Your task to perform on an android device: Search for nike dri-fit shirts on Nike Image 0: 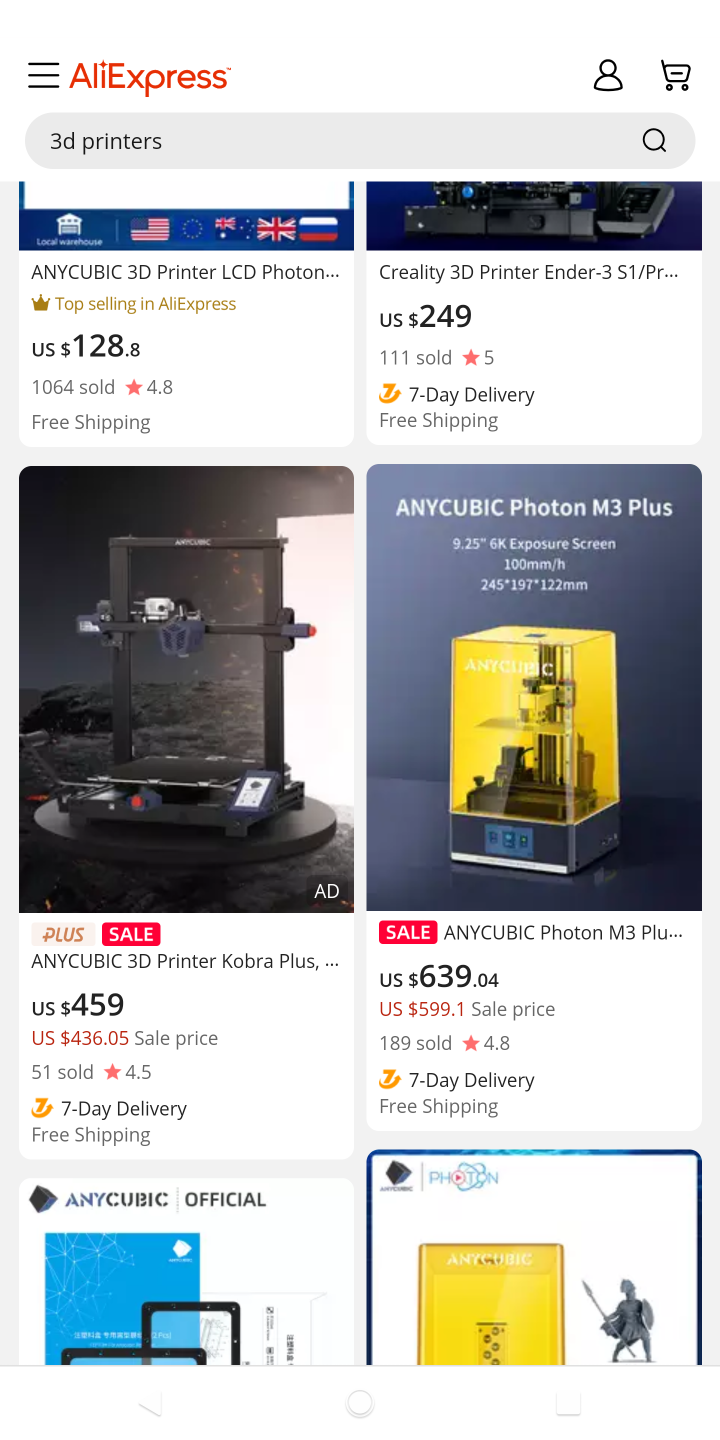
Step 0: press home button
Your task to perform on an android device: Search for nike dri-fit shirts on Nike Image 1: 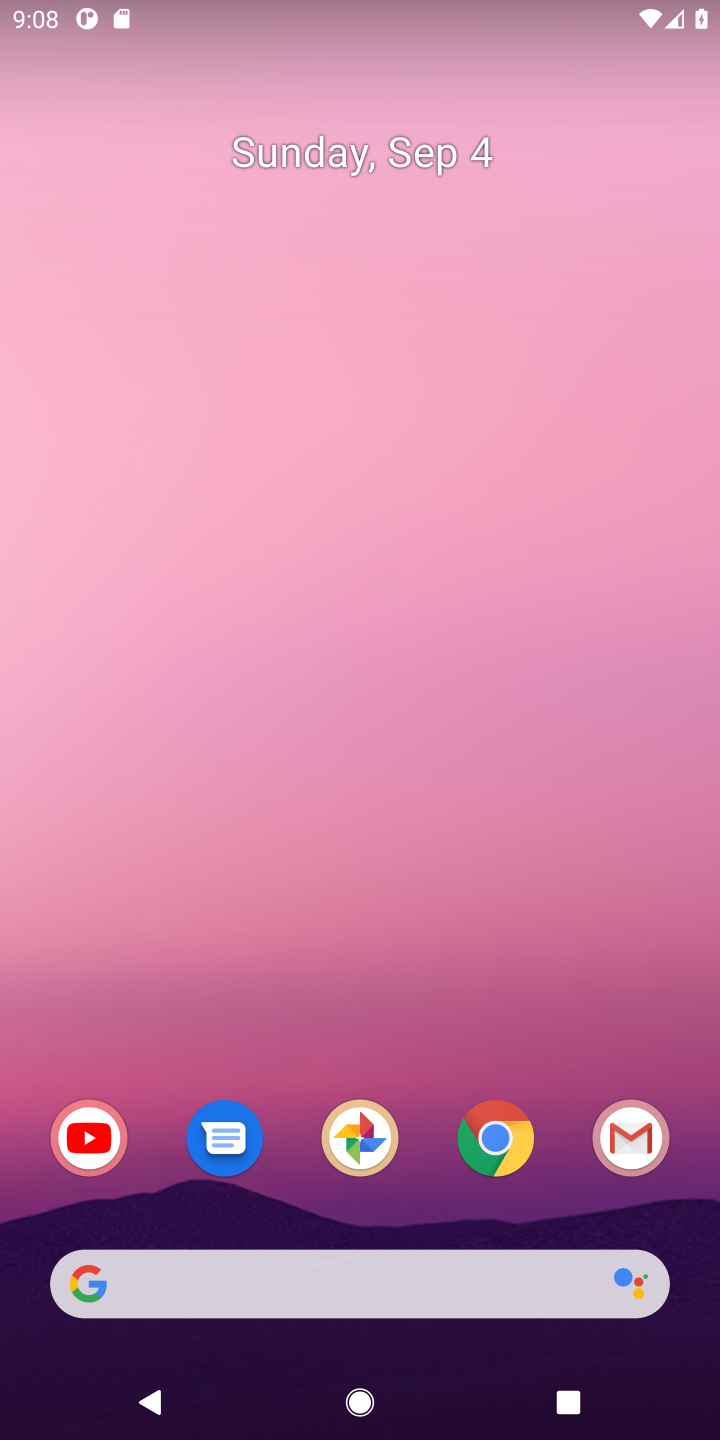
Step 1: drag from (425, 1186) to (431, 240)
Your task to perform on an android device: Search for nike dri-fit shirts on Nike Image 2: 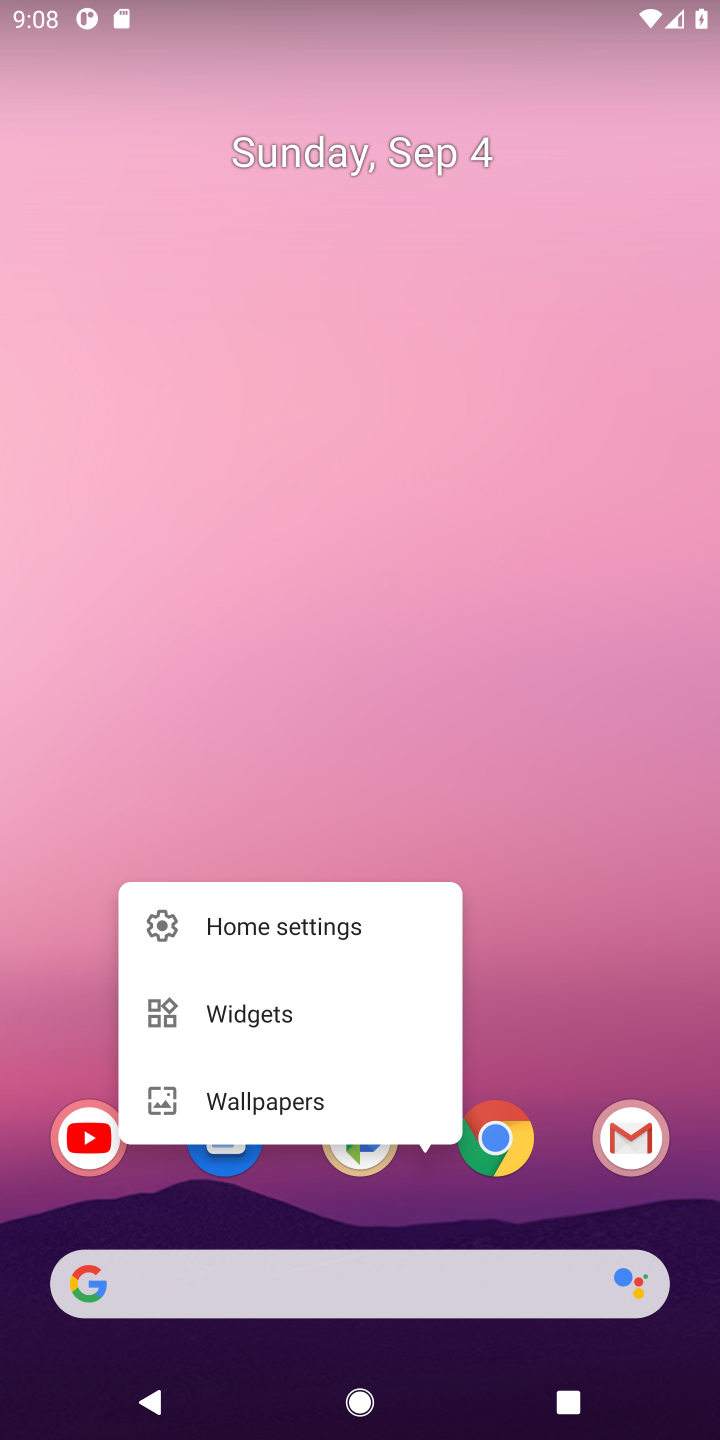
Step 2: click (548, 986)
Your task to perform on an android device: Search for nike dri-fit shirts on Nike Image 3: 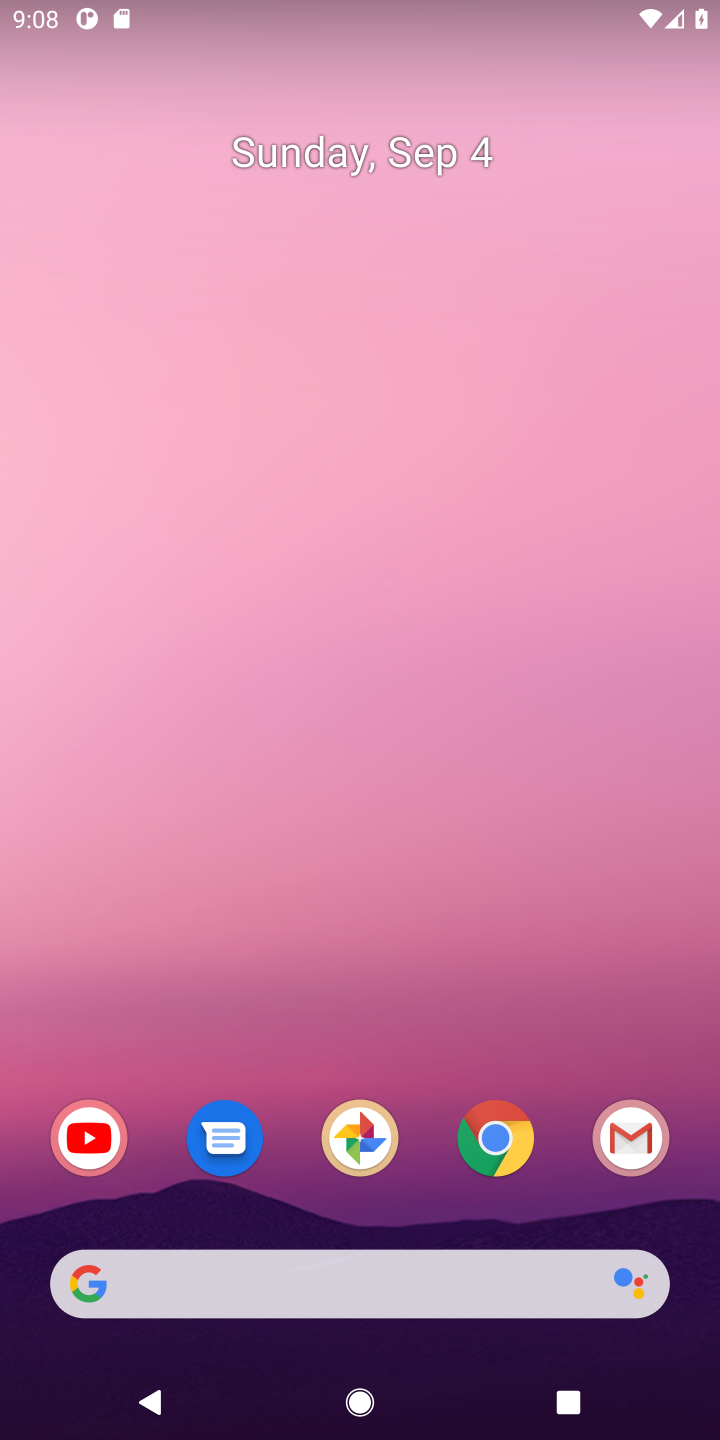
Step 3: drag from (432, 1065) to (383, 89)
Your task to perform on an android device: Search for nike dri-fit shirts on Nike Image 4: 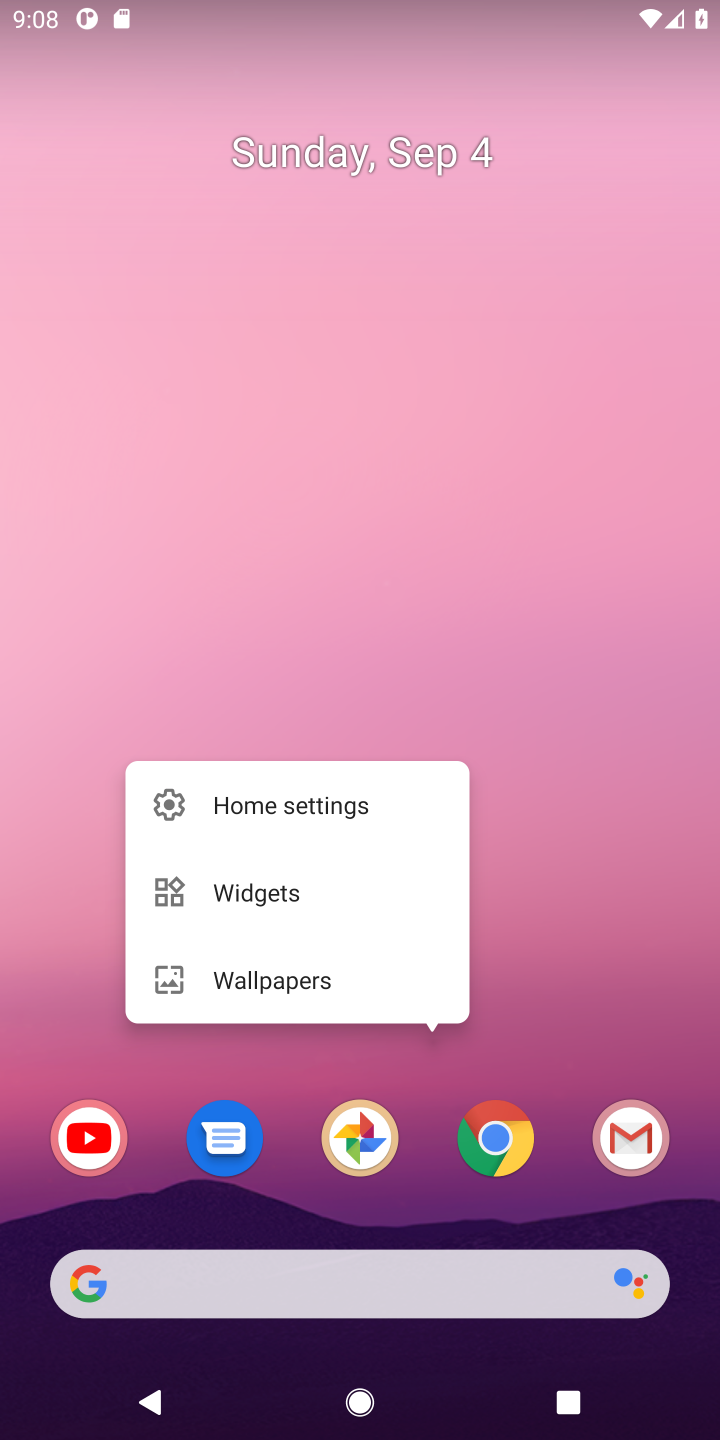
Step 4: click (554, 875)
Your task to perform on an android device: Search for nike dri-fit shirts on Nike Image 5: 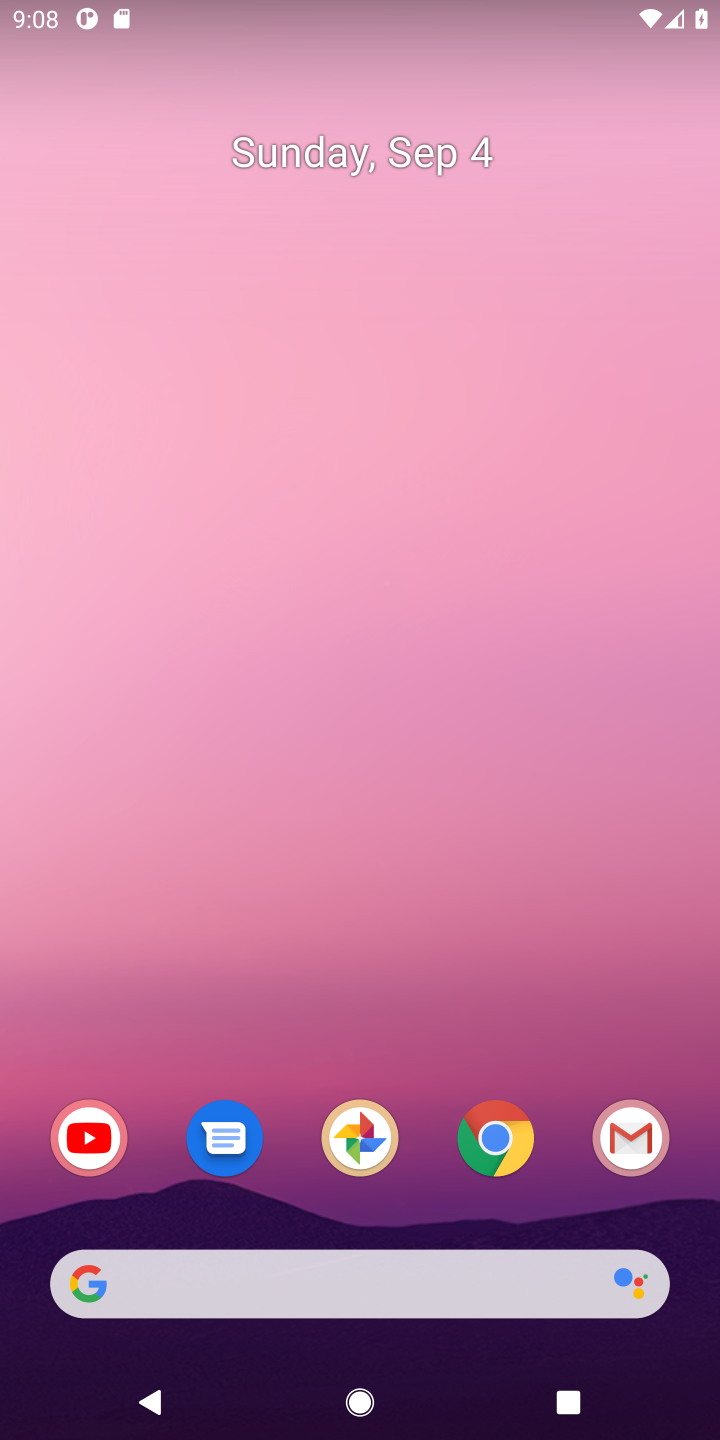
Step 5: drag from (413, 1073) to (457, 234)
Your task to perform on an android device: Search for nike dri-fit shirts on Nike Image 6: 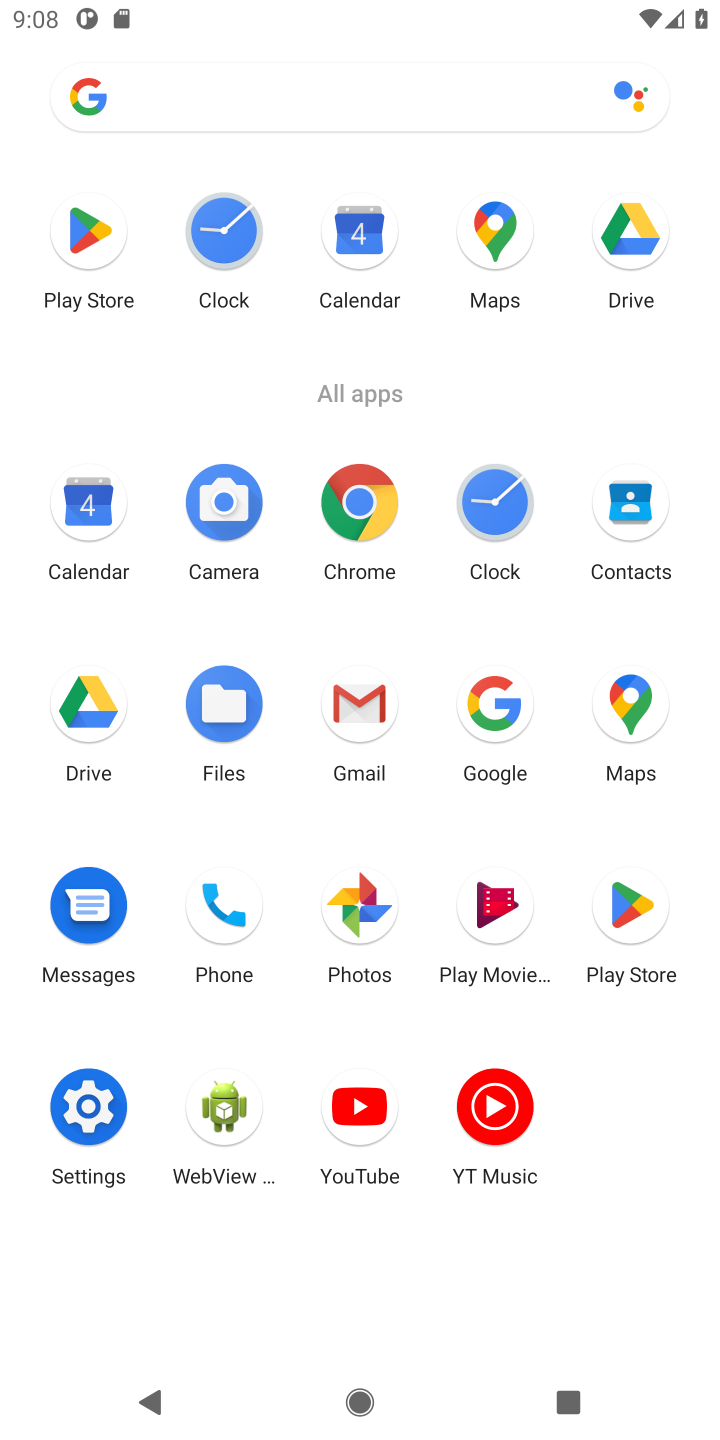
Step 6: click (354, 491)
Your task to perform on an android device: Search for nike dri-fit shirts on Nike Image 7: 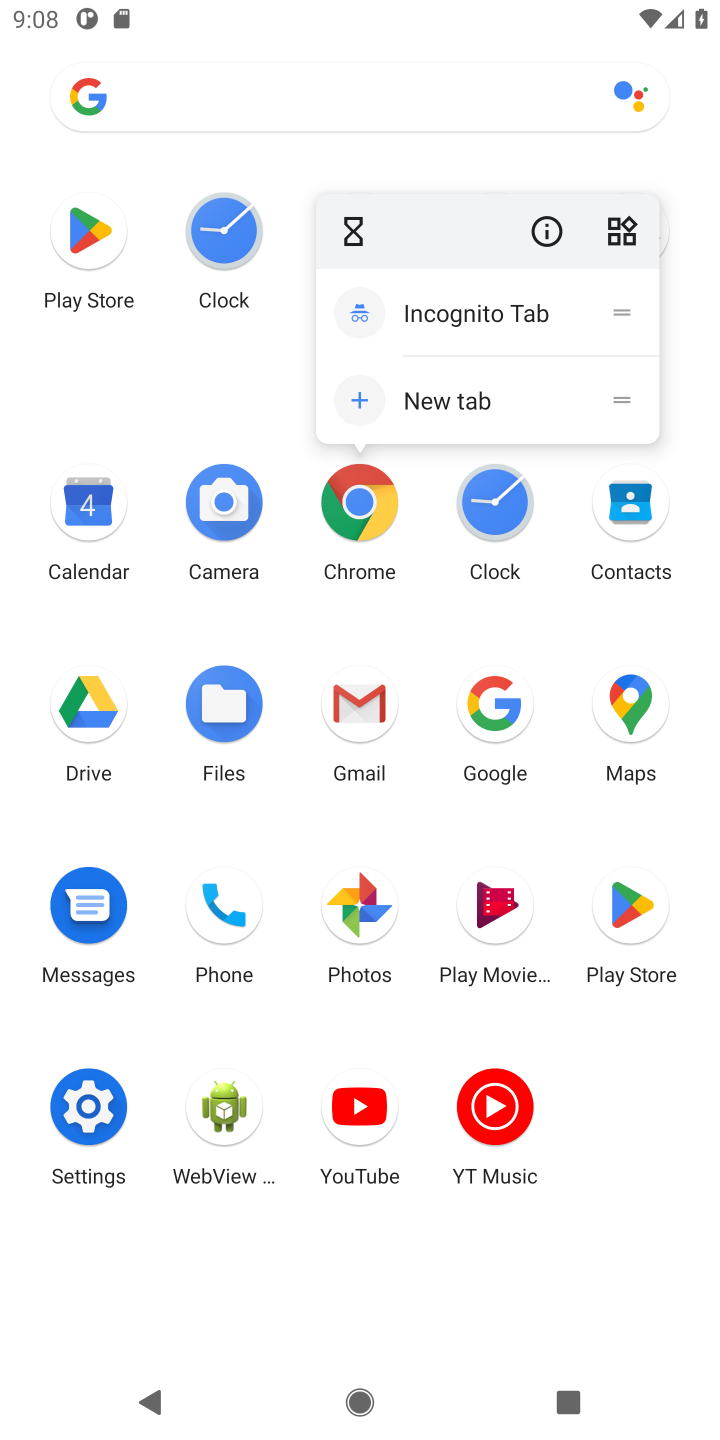
Step 7: click (355, 489)
Your task to perform on an android device: Search for nike dri-fit shirts on Nike Image 8: 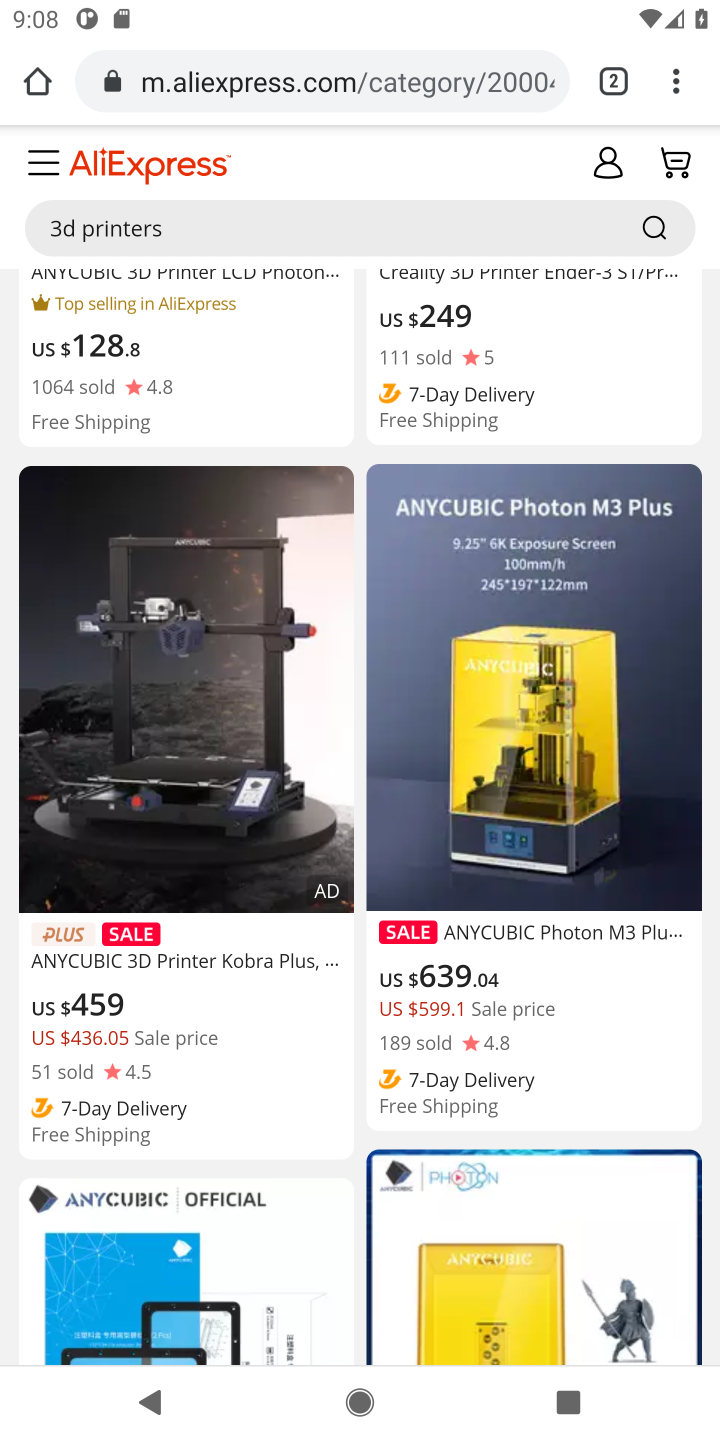
Step 8: click (605, 80)
Your task to perform on an android device: Search for nike dri-fit shirts on Nike Image 9: 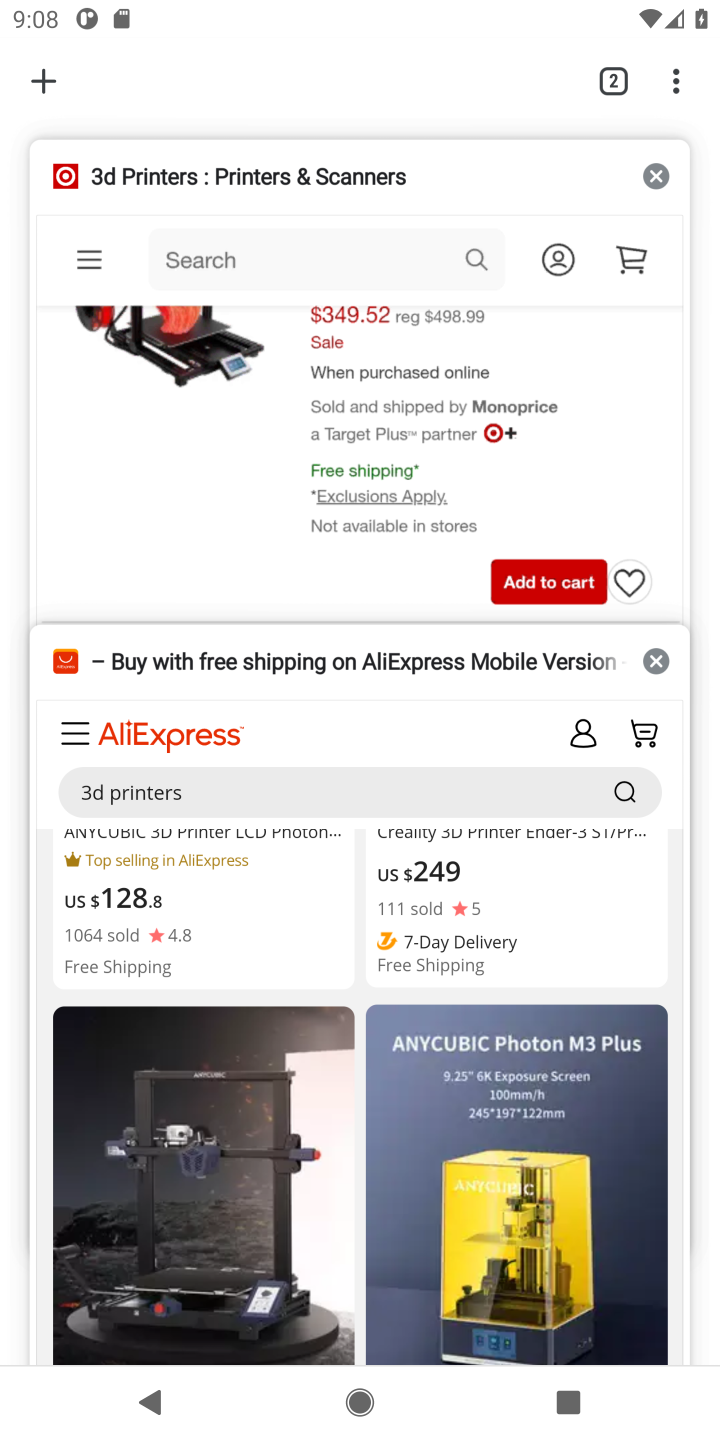
Step 9: click (659, 660)
Your task to perform on an android device: Search for nike dri-fit shirts on Nike Image 10: 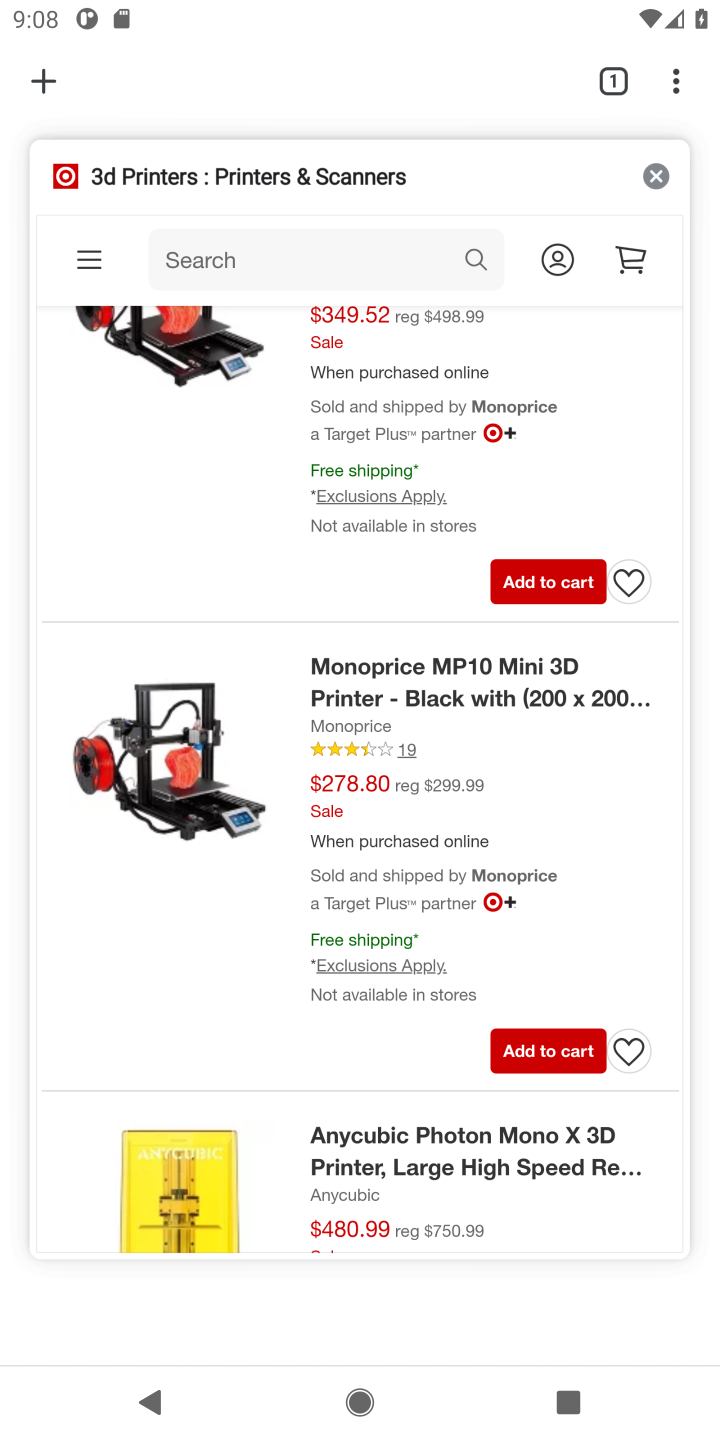
Step 10: click (658, 174)
Your task to perform on an android device: Search for nike dri-fit shirts on Nike Image 11: 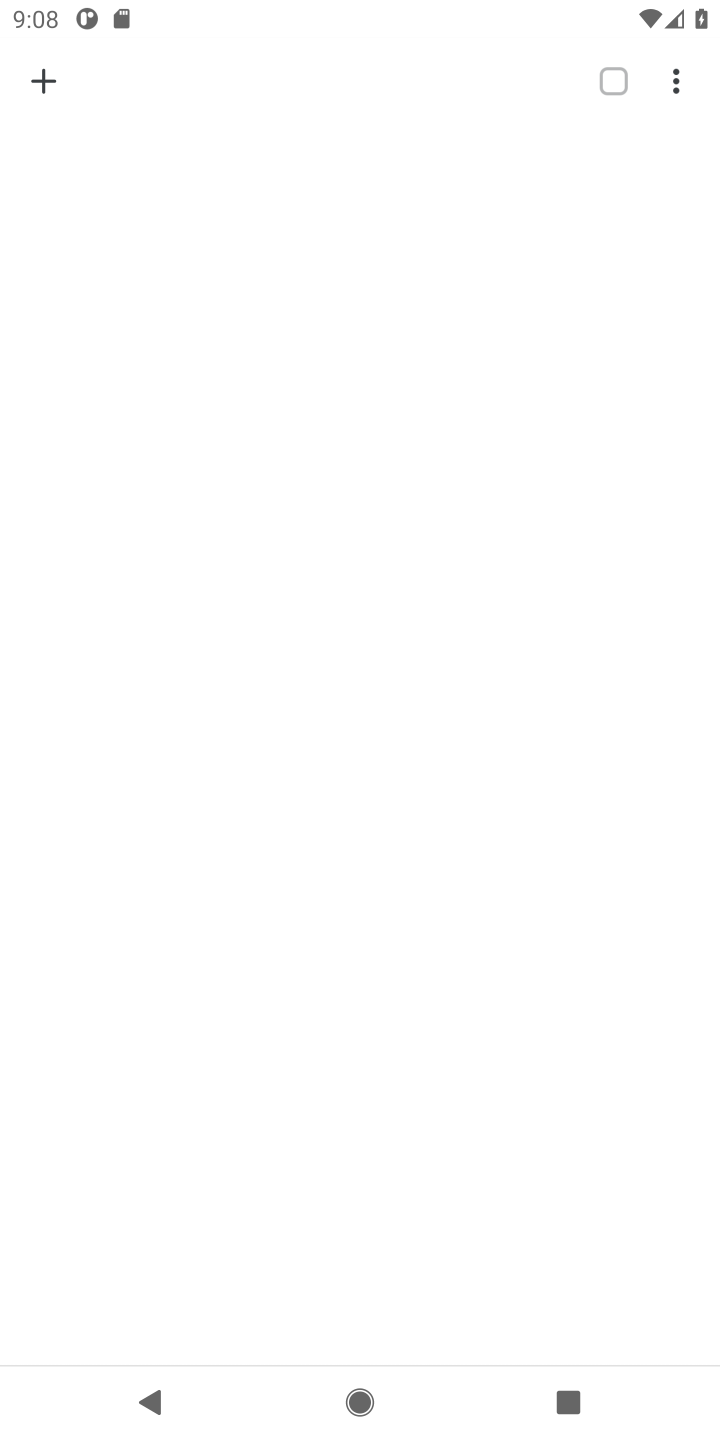
Step 11: click (54, 83)
Your task to perform on an android device: Search for nike dri-fit shirts on Nike Image 12: 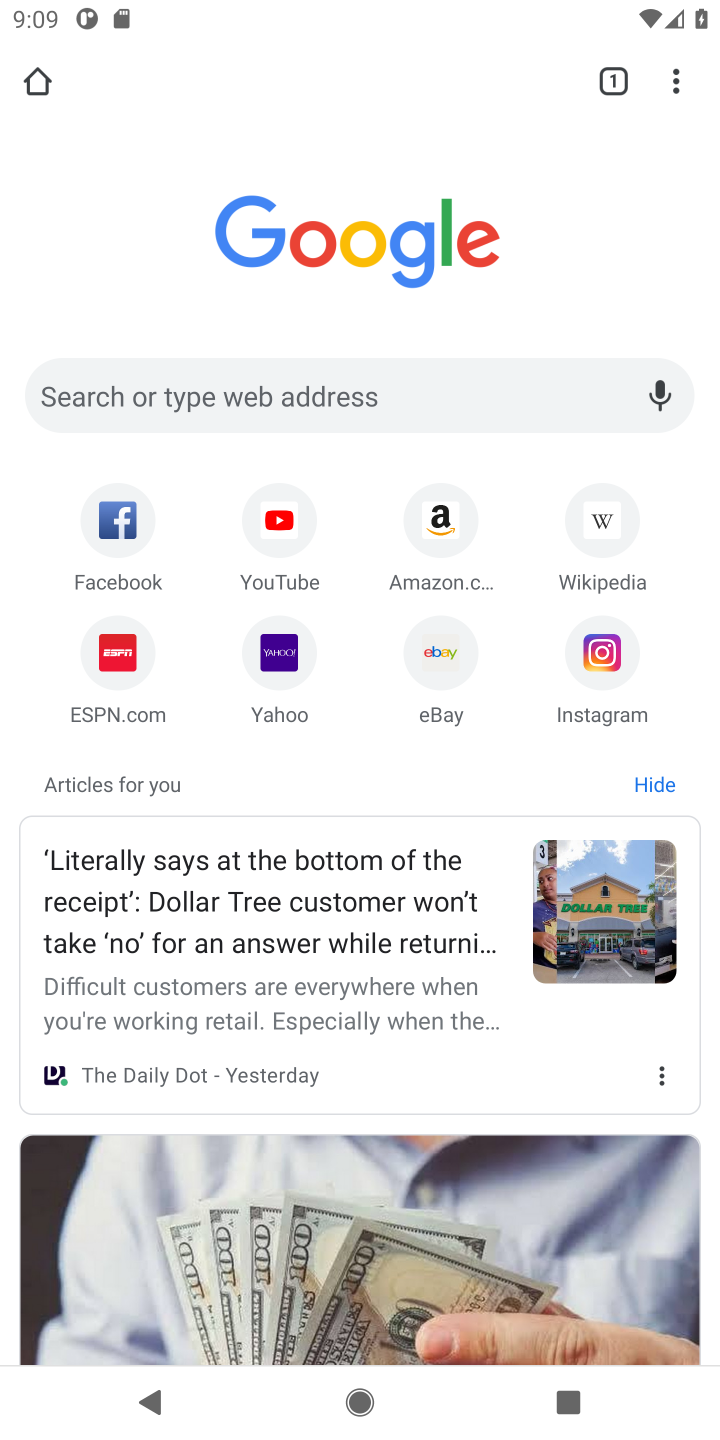
Step 12: click (170, 398)
Your task to perform on an android device: Search for nike dri-fit shirts on Nike Image 13: 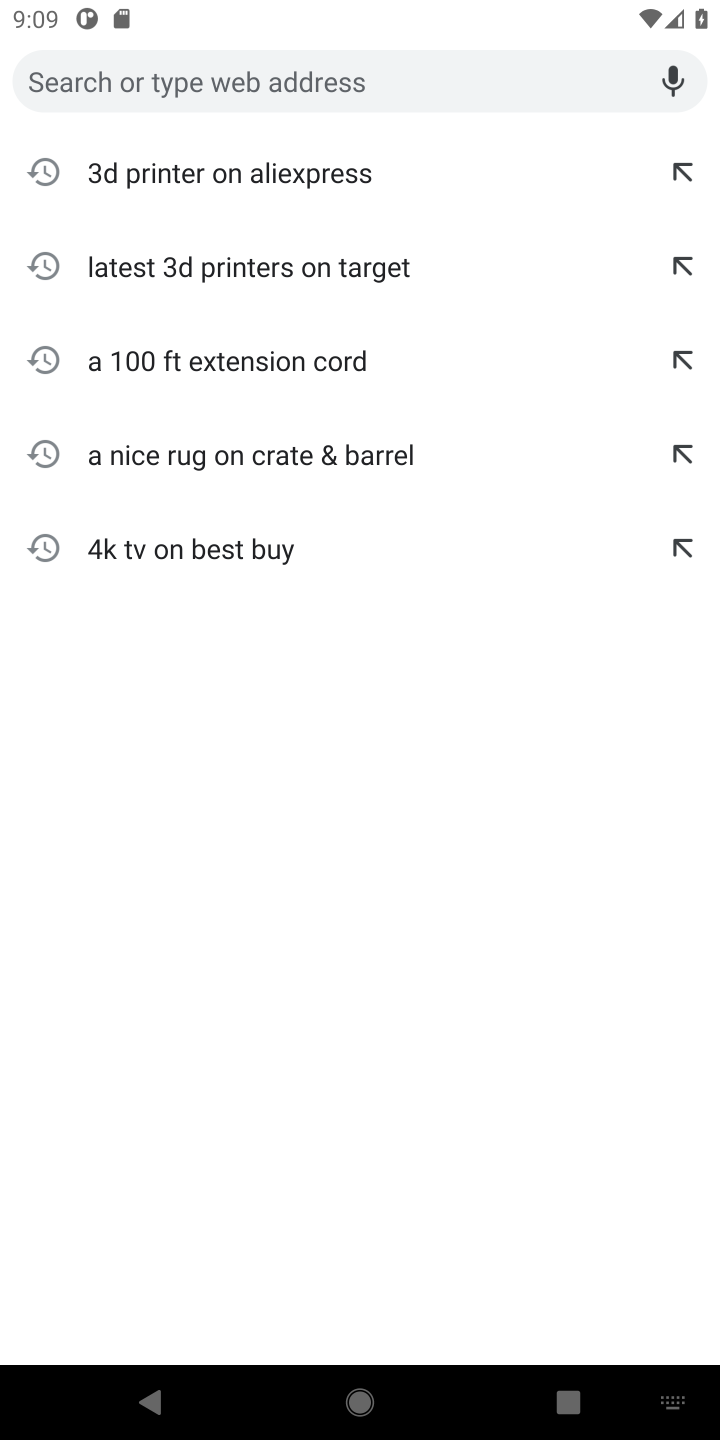
Step 13: type " nike dri-fit shirts on Nike"
Your task to perform on an android device: Search for nike dri-fit shirts on Nike Image 14: 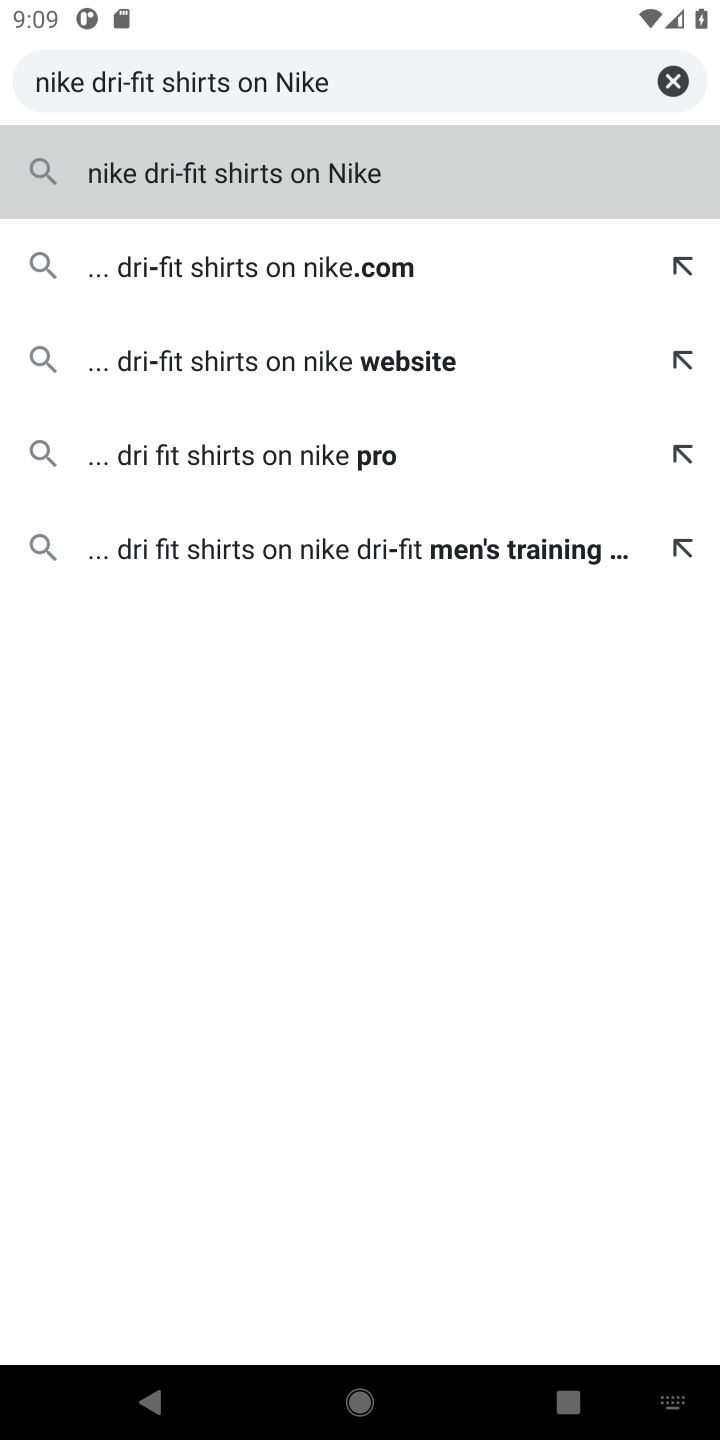
Step 14: click (269, 181)
Your task to perform on an android device: Search for nike dri-fit shirts on Nike Image 15: 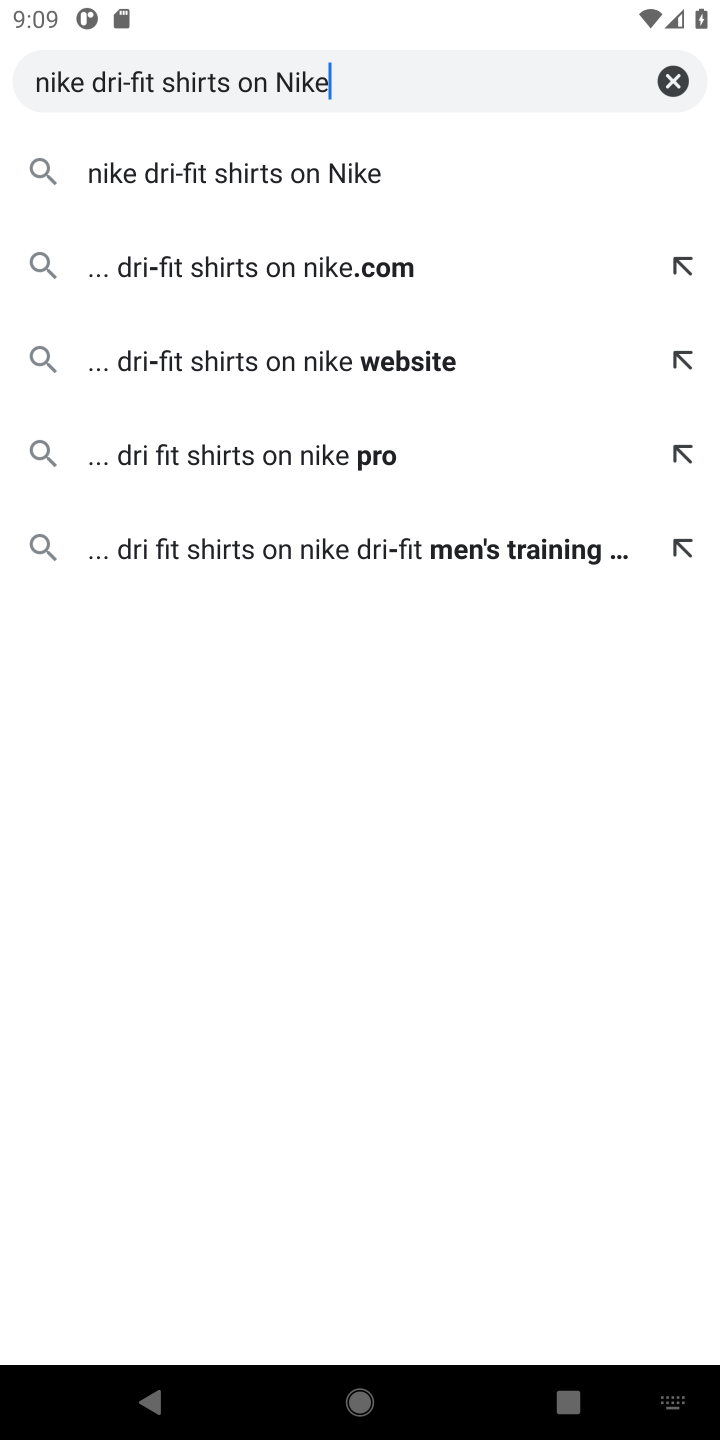
Step 15: click (363, 166)
Your task to perform on an android device: Search for nike dri-fit shirts on Nike Image 16: 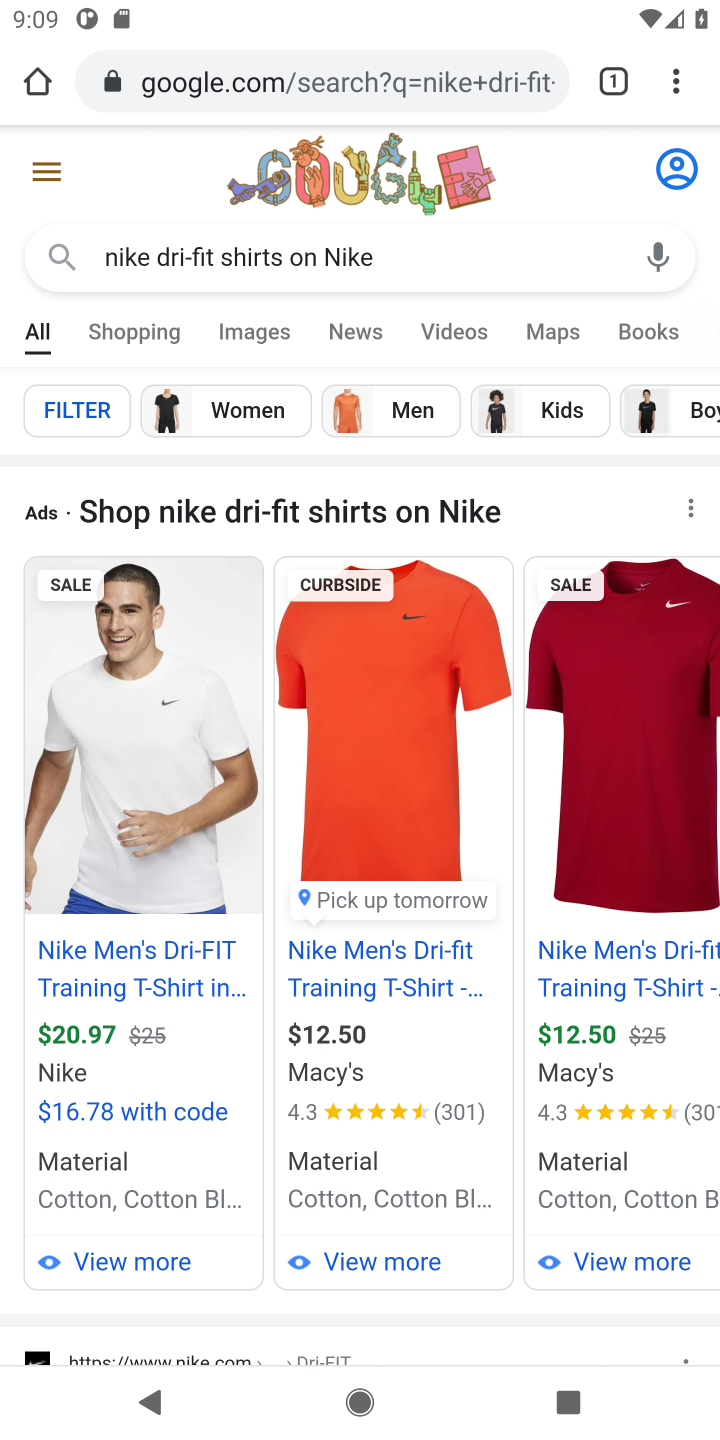
Step 16: drag from (444, 1315) to (421, 694)
Your task to perform on an android device: Search for nike dri-fit shirts on Nike Image 17: 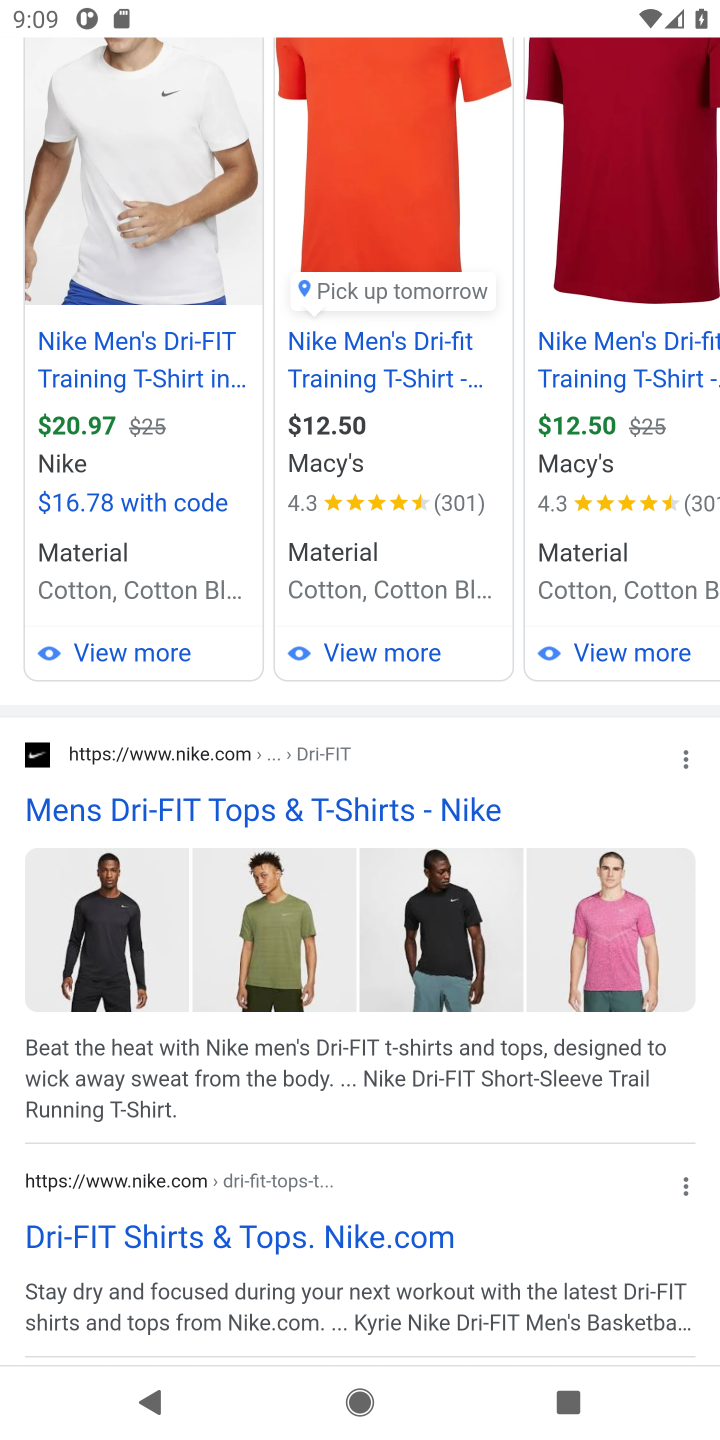
Step 17: click (354, 1226)
Your task to perform on an android device: Search for nike dri-fit shirts on Nike Image 18: 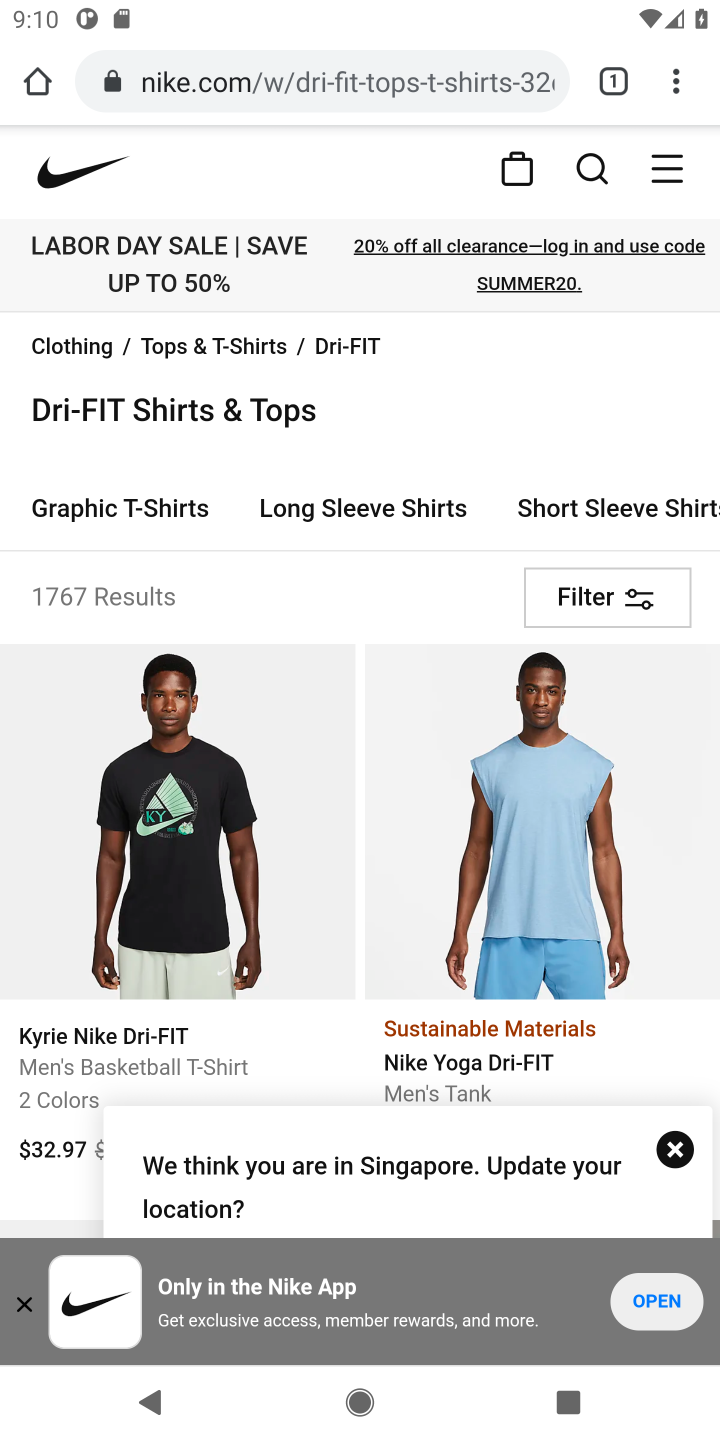
Step 18: click (678, 1149)
Your task to perform on an android device: Search for nike dri-fit shirts on Nike Image 19: 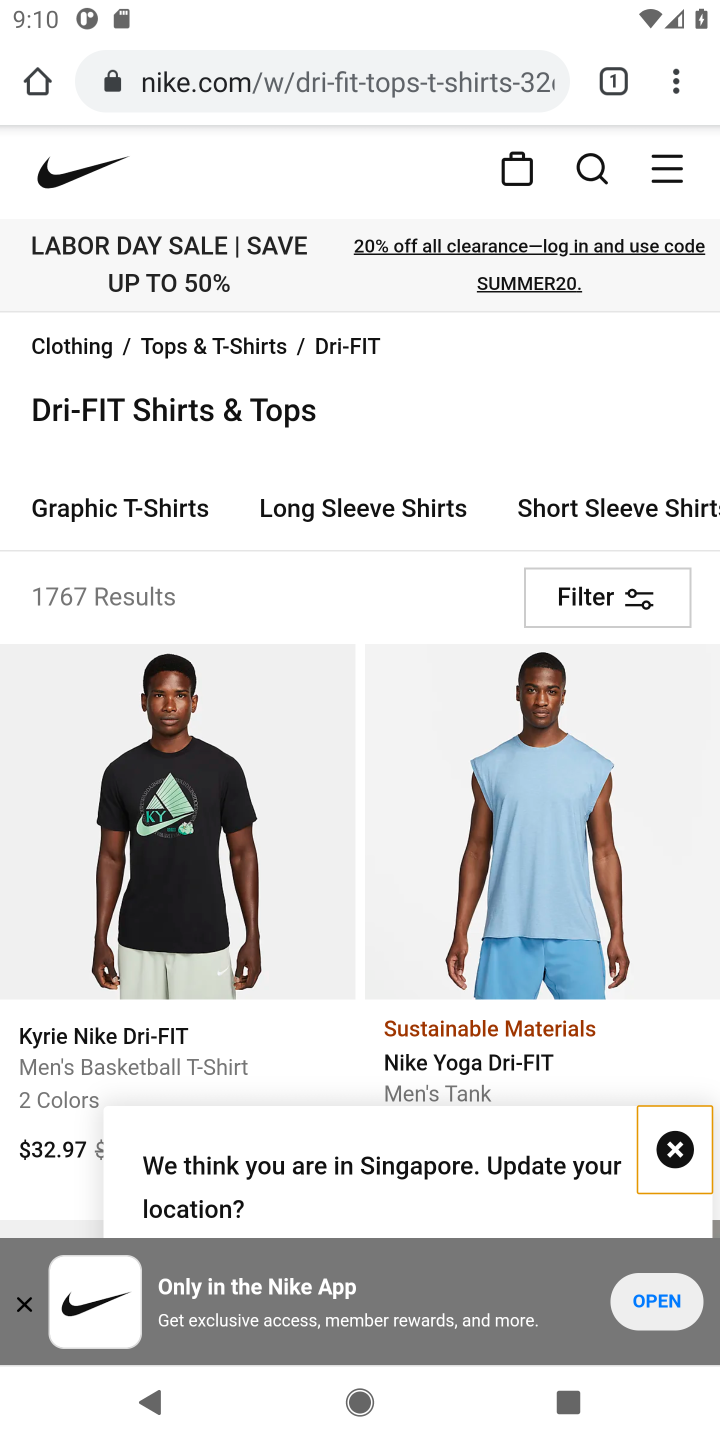
Step 19: task complete